Your task to perform on an android device: Go to Maps Image 0: 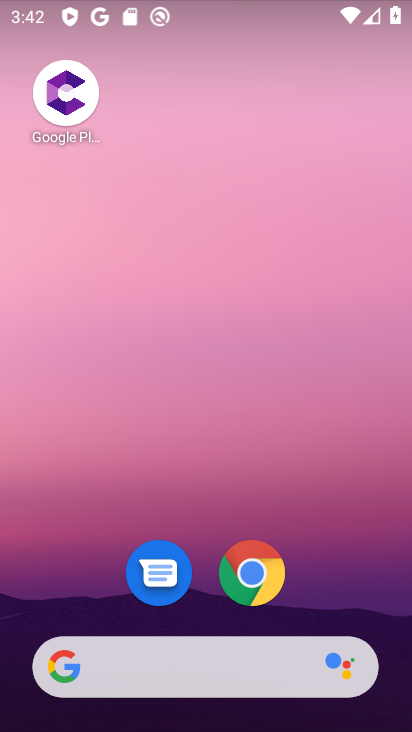
Step 0: drag from (255, 609) to (254, 70)
Your task to perform on an android device: Go to Maps Image 1: 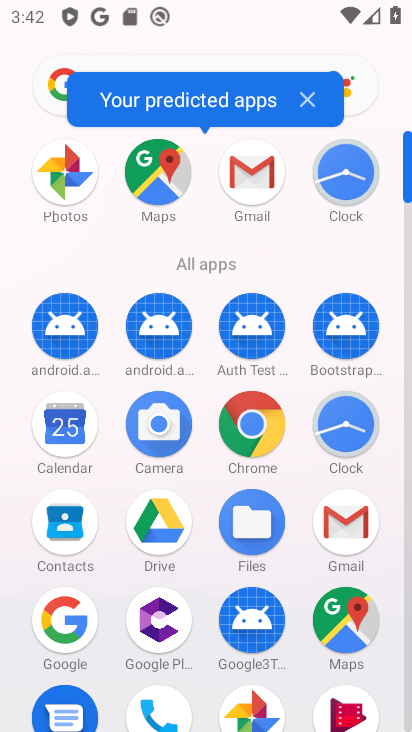
Step 1: click (156, 234)
Your task to perform on an android device: Go to Maps Image 2: 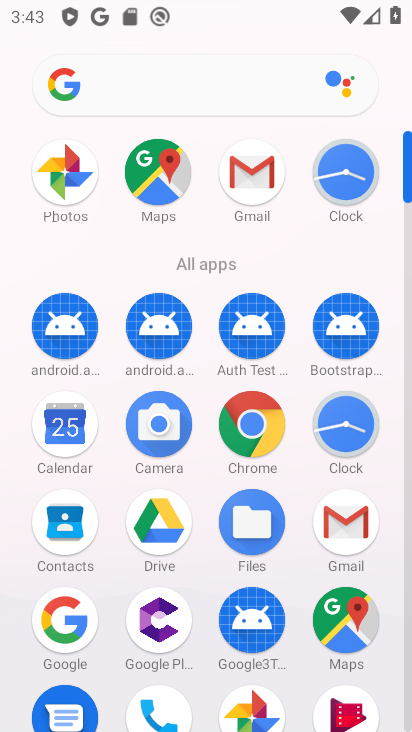
Step 2: click (168, 188)
Your task to perform on an android device: Go to Maps Image 3: 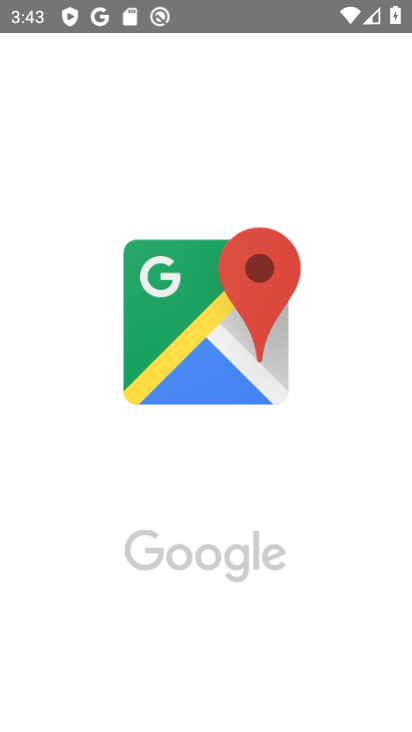
Step 3: click (281, 525)
Your task to perform on an android device: Go to Maps Image 4: 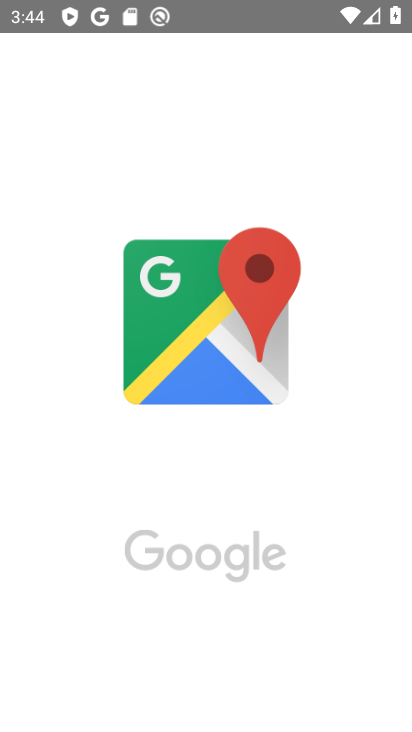
Step 4: click (270, 485)
Your task to perform on an android device: Go to Maps Image 5: 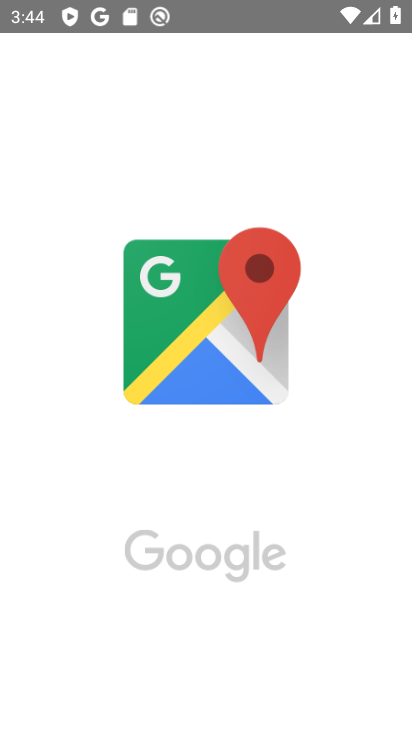
Step 5: task complete